Your task to perform on an android device: Show me productivity apps on the Play Store Image 0: 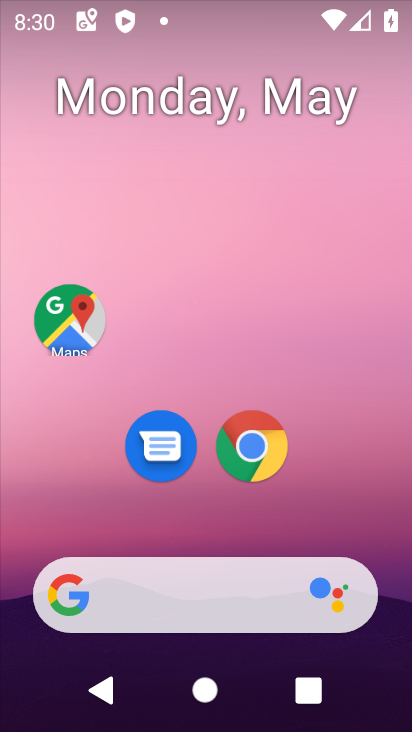
Step 0: press home button
Your task to perform on an android device: Show me productivity apps on the Play Store Image 1: 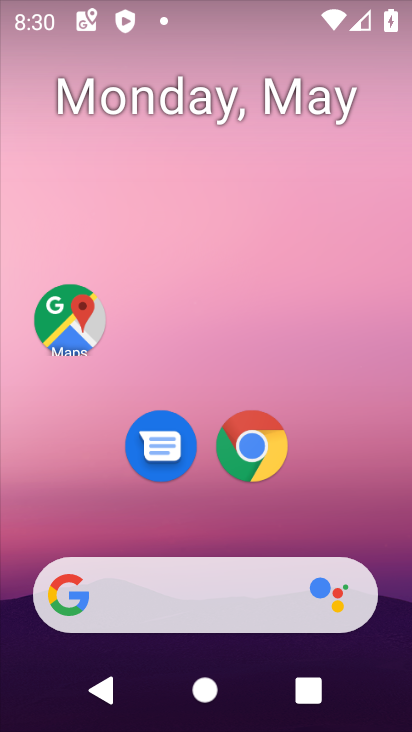
Step 1: drag from (211, 529) to (253, 54)
Your task to perform on an android device: Show me productivity apps on the Play Store Image 2: 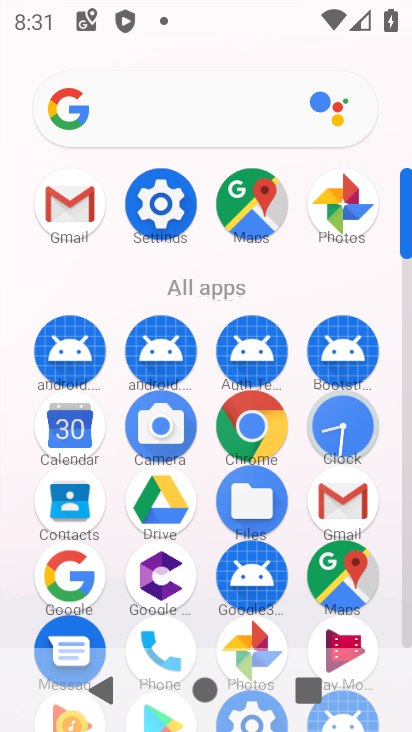
Step 2: drag from (201, 545) to (232, 153)
Your task to perform on an android device: Show me productivity apps on the Play Store Image 3: 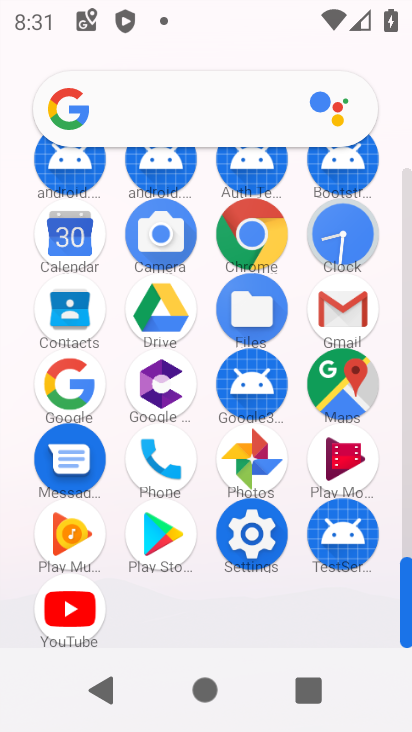
Step 3: click (159, 527)
Your task to perform on an android device: Show me productivity apps on the Play Store Image 4: 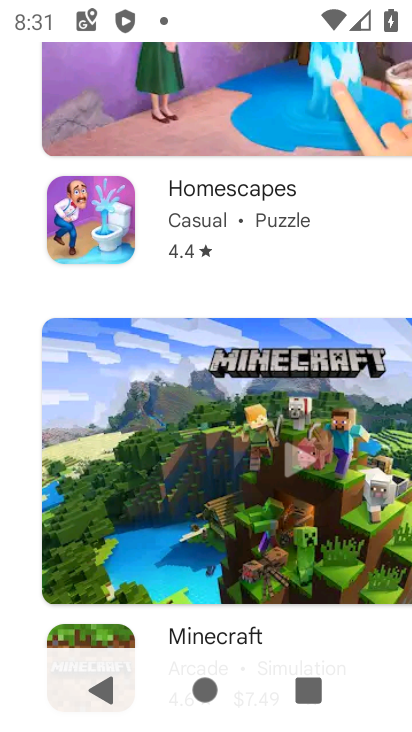
Step 4: press back button
Your task to perform on an android device: Show me productivity apps on the Play Store Image 5: 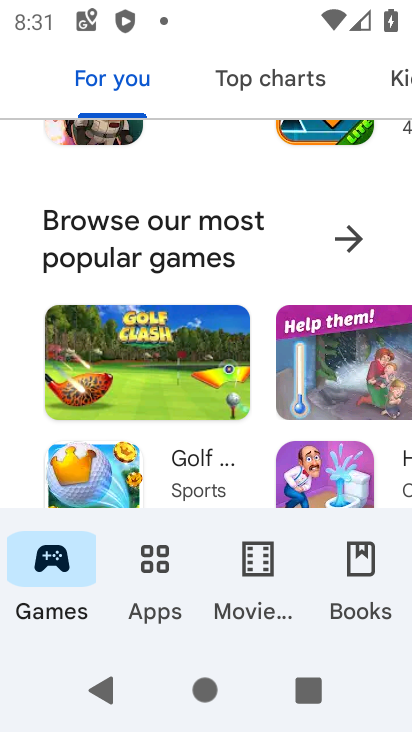
Step 5: click (159, 563)
Your task to perform on an android device: Show me productivity apps on the Play Store Image 6: 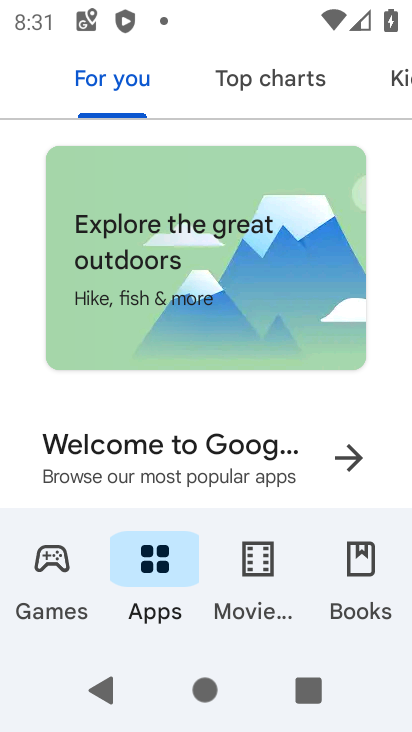
Step 6: drag from (374, 92) to (114, 106)
Your task to perform on an android device: Show me productivity apps on the Play Store Image 7: 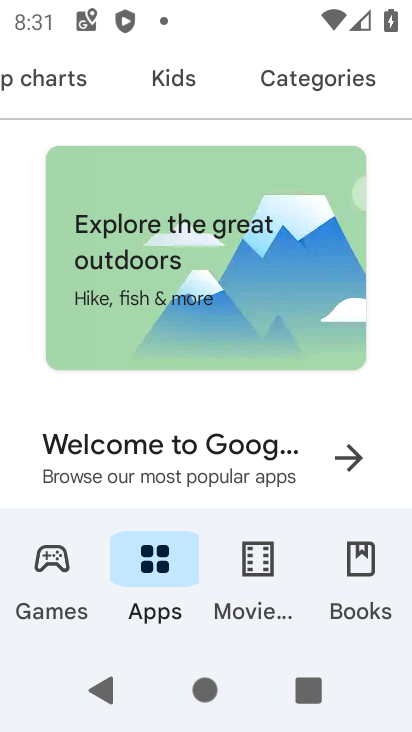
Step 7: click (295, 86)
Your task to perform on an android device: Show me productivity apps on the Play Store Image 8: 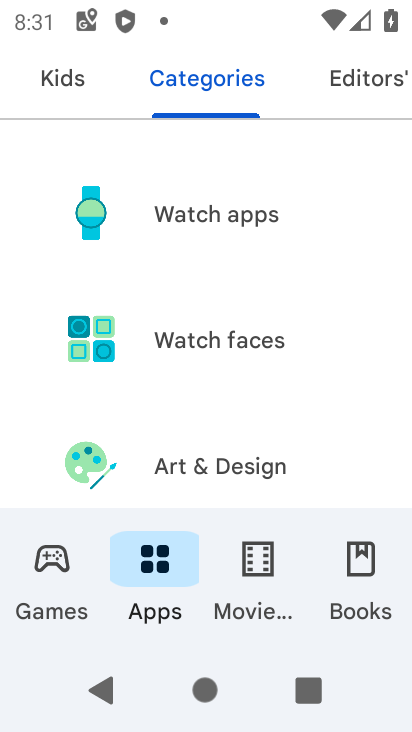
Step 8: drag from (237, 471) to (230, 60)
Your task to perform on an android device: Show me productivity apps on the Play Store Image 9: 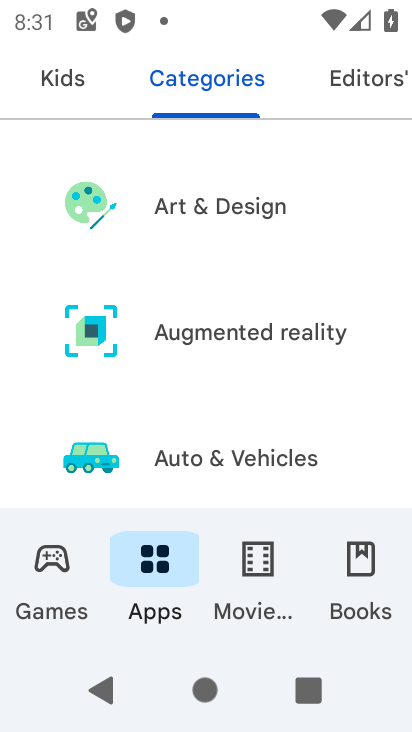
Step 9: drag from (225, 476) to (214, 82)
Your task to perform on an android device: Show me productivity apps on the Play Store Image 10: 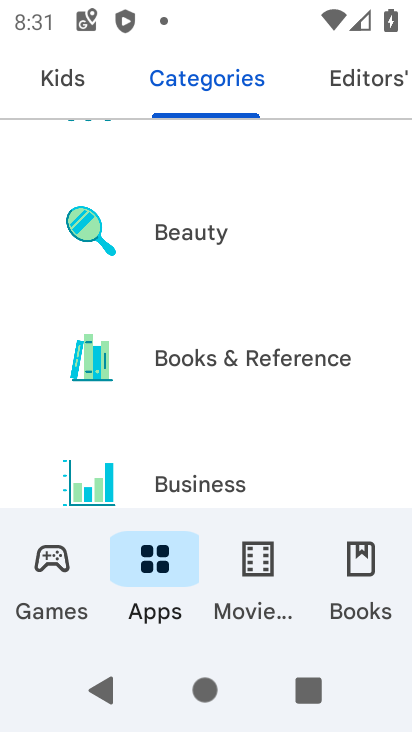
Step 10: drag from (222, 482) to (236, 70)
Your task to perform on an android device: Show me productivity apps on the Play Store Image 11: 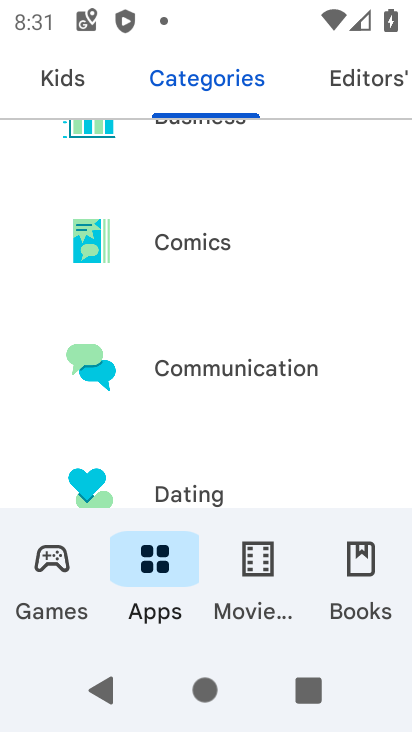
Step 11: drag from (229, 486) to (247, 78)
Your task to perform on an android device: Show me productivity apps on the Play Store Image 12: 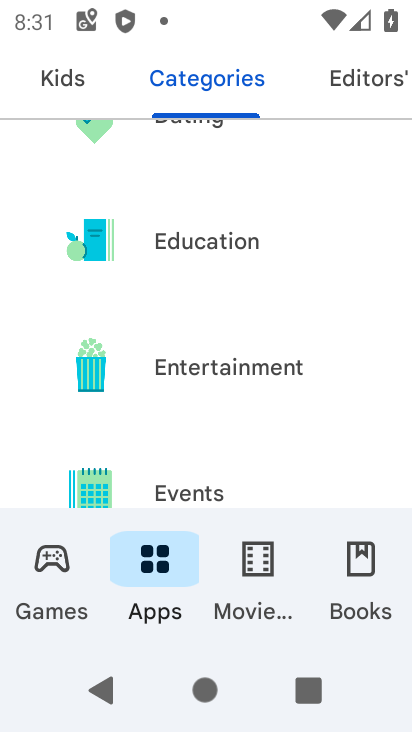
Step 12: drag from (237, 491) to (239, 16)
Your task to perform on an android device: Show me productivity apps on the Play Store Image 13: 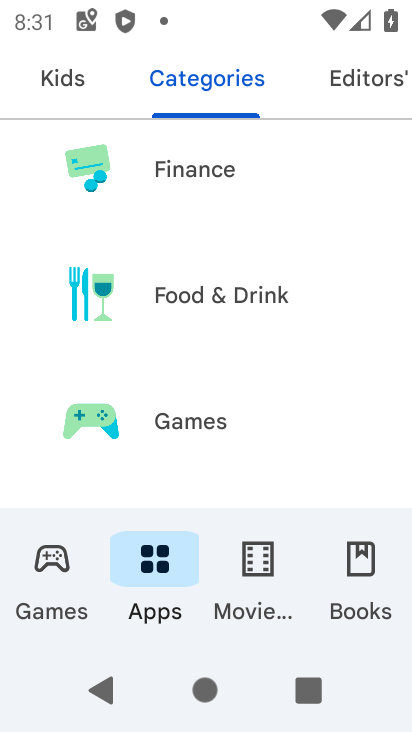
Step 13: drag from (223, 460) to (246, 23)
Your task to perform on an android device: Show me productivity apps on the Play Store Image 14: 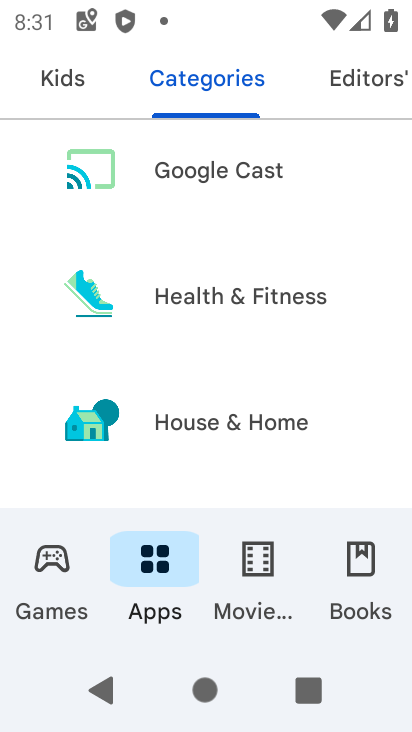
Step 14: drag from (236, 480) to (235, 68)
Your task to perform on an android device: Show me productivity apps on the Play Store Image 15: 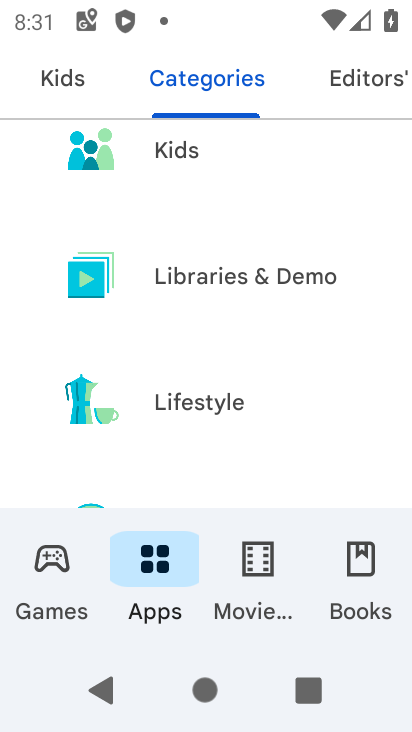
Step 15: drag from (219, 483) to (269, 21)
Your task to perform on an android device: Show me productivity apps on the Play Store Image 16: 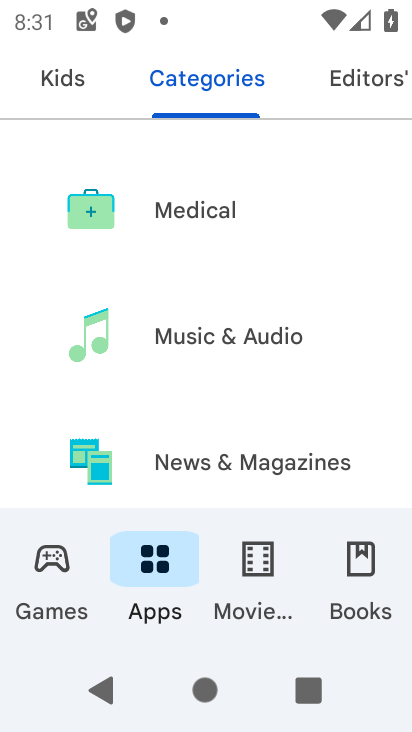
Step 16: drag from (248, 375) to (283, 49)
Your task to perform on an android device: Show me productivity apps on the Play Store Image 17: 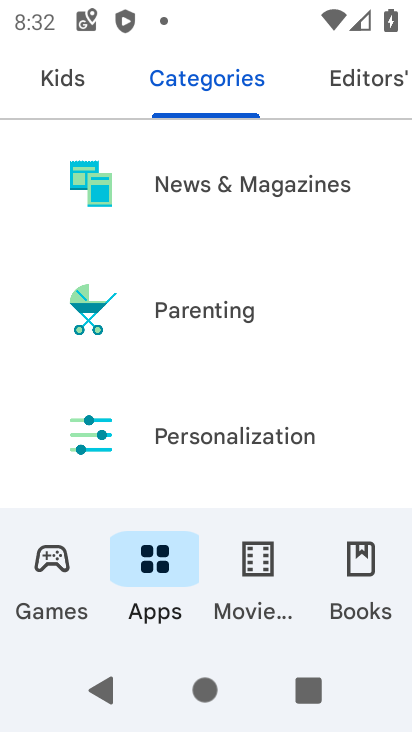
Step 17: drag from (232, 481) to (225, 189)
Your task to perform on an android device: Show me productivity apps on the Play Store Image 18: 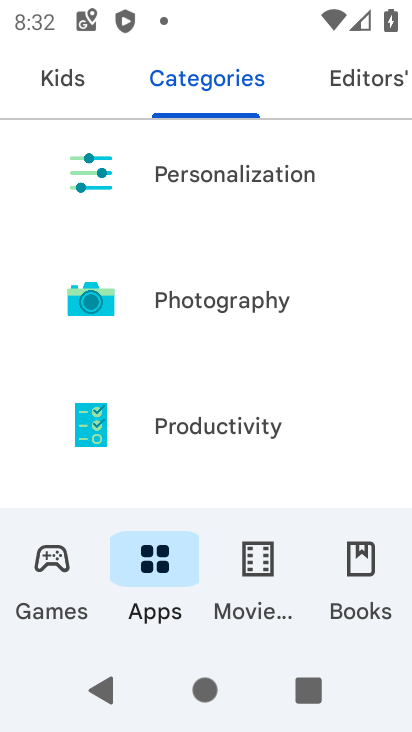
Step 18: click (135, 420)
Your task to perform on an android device: Show me productivity apps on the Play Store Image 19: 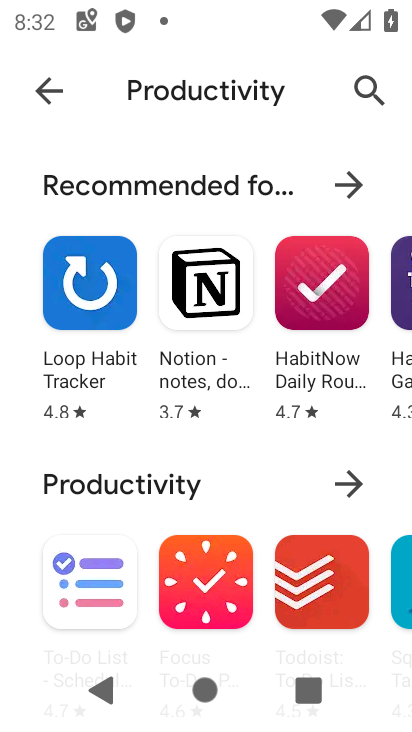
Step 19: task complete